Your task to perform on an android device: empty trash in google photos Image 0: 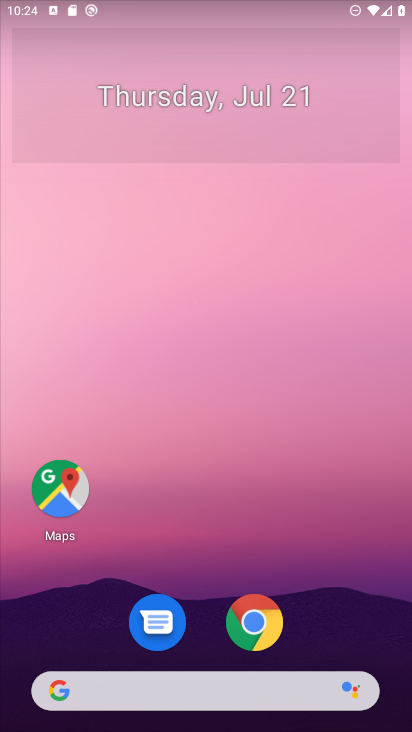
Step 0: drag from (221, 693) to (150, 0)
Your task to perform on an android device: empty trash in google photos Image 1: 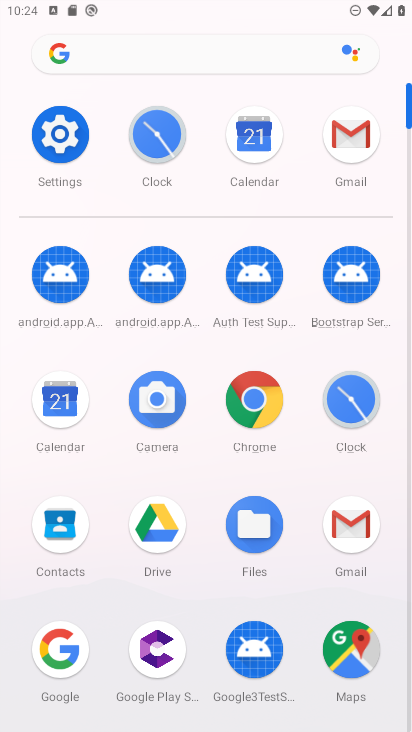
Step 1: drag from (205, 621) to (257, 7)
Your task to perform on an android device: empty trash in google photos Image 2: 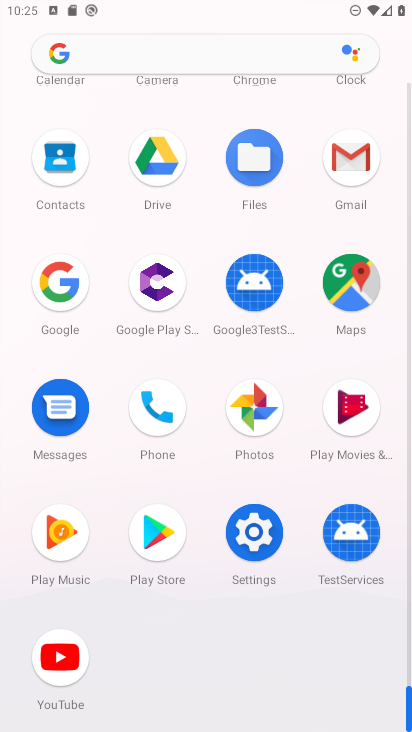
Step 2: click (267, 408)
Your task to perform on an android device: empty trash in google photos Image 3: 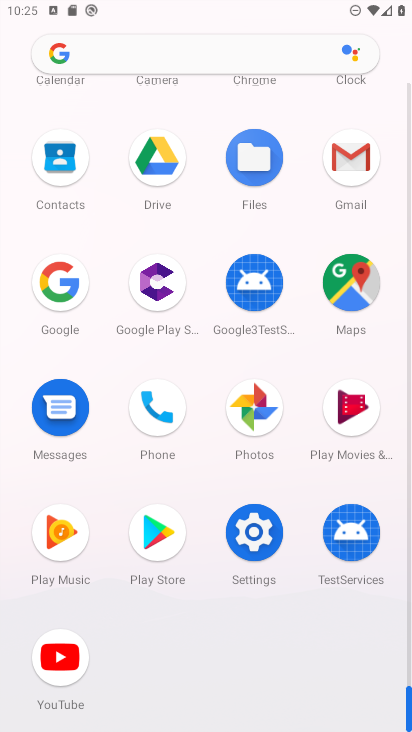
Step 3: click (267, 408)
Your task to perform on an android device: empty trash in google photos Image 4: 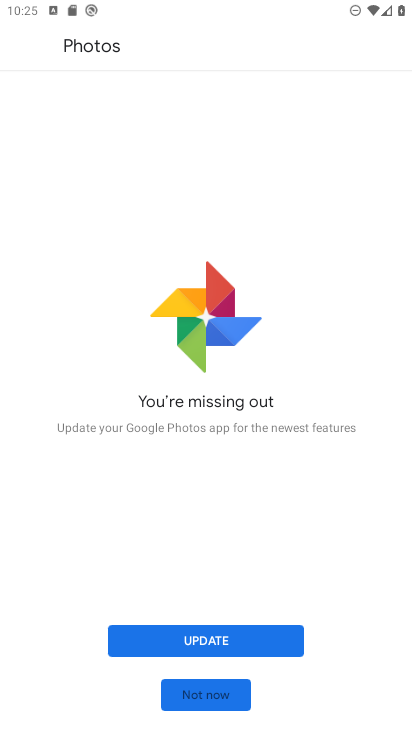
Step 4: click (224, 642)
Your task to perform on an android device: empty trash in google photos Image 5: 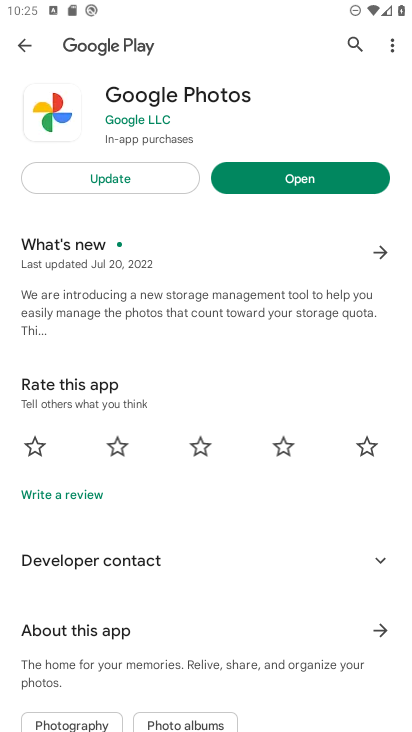
Step 5: click (107, 181)
Your task to perform on an android device: empty trash in google photos Image 6: 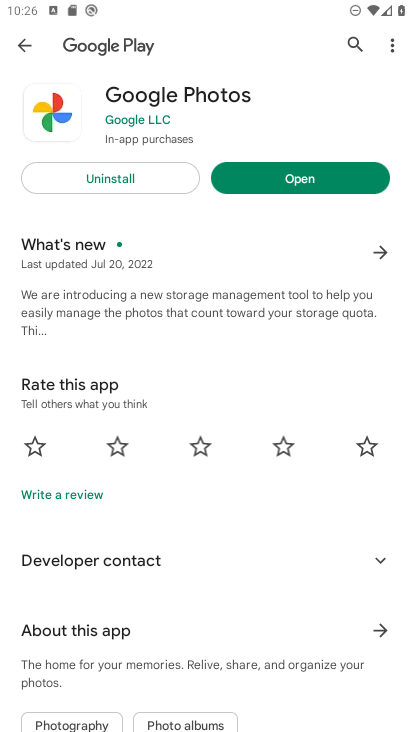
Step 6: click (354, 172)
Your task to perform on an android device: empty trash in google photos Image 7: 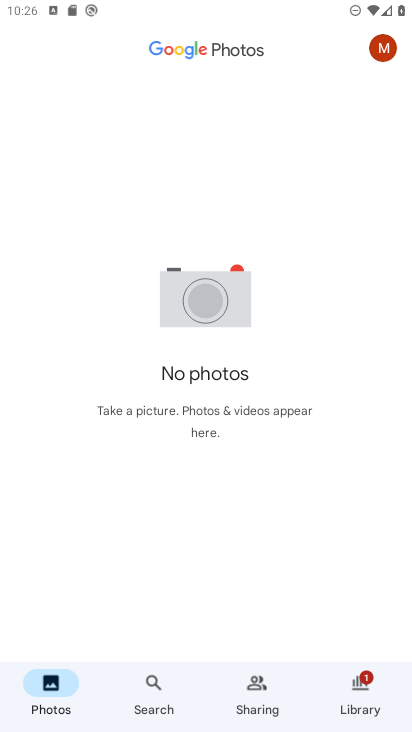
Step 7: click (371, 695)
Your task to perform on an android device: empty trash in google photos Image 8: 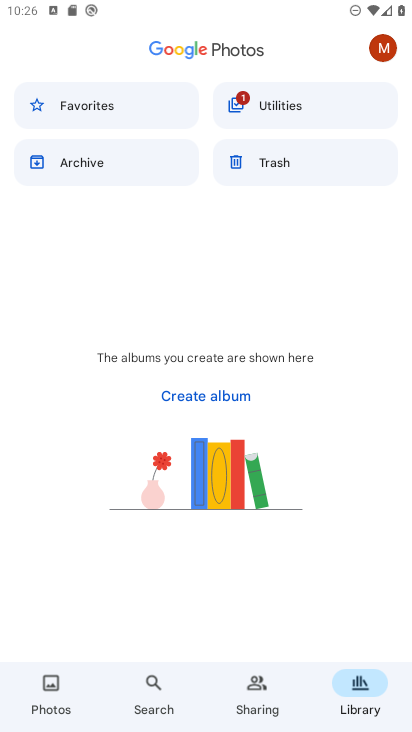
Step 8: click (316, 159)
Your task to perform on an android device: empty trash in google photos Image 9: 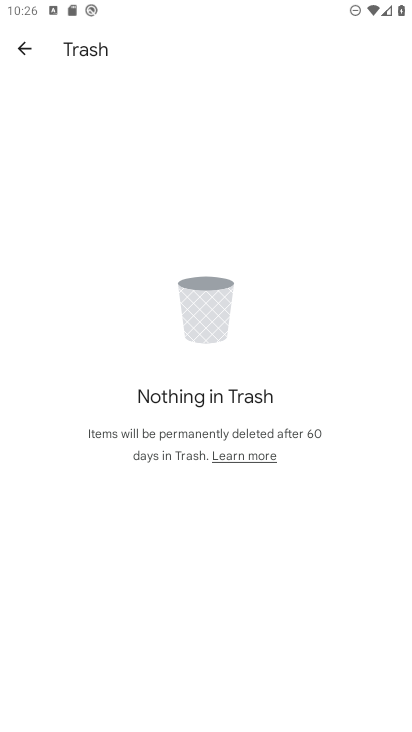
Step 9: task complete